Your task to perform on an android device: open sync settings in chrome Image 0: 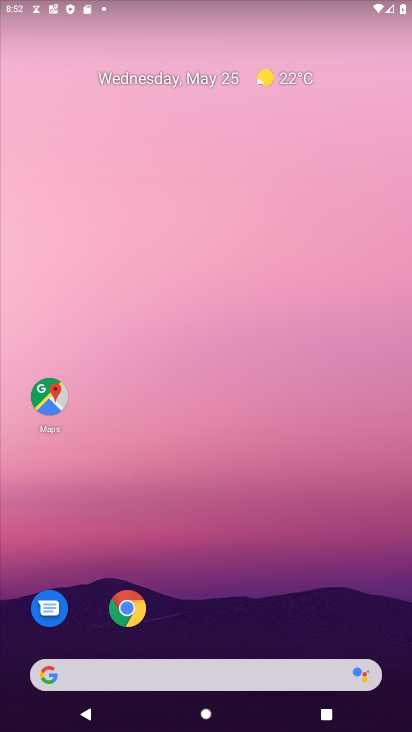
Step 0: click (127, 606)
Your task to perform on an android device: open sync settings in chrome Image 1: 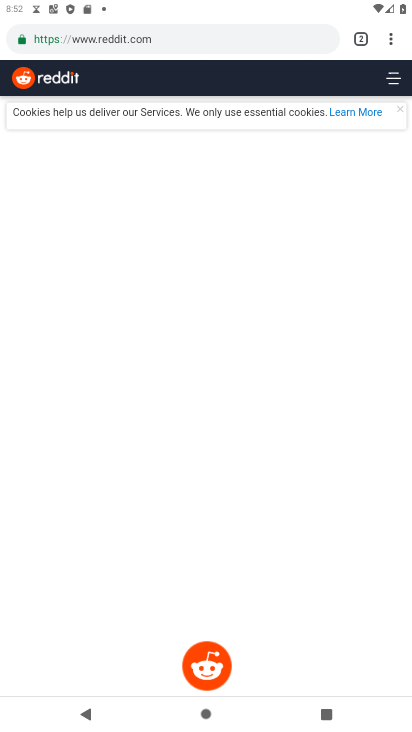
Step 1: click (391, 38)
Your task to perform on an android device: open sync settings in chrome Image 2: 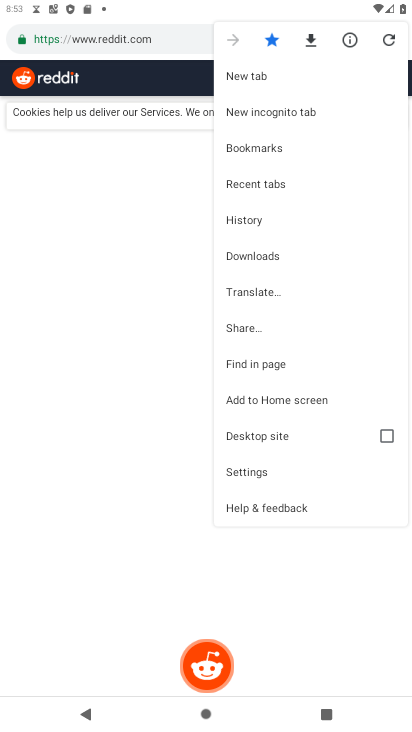
Step 2: click (247, 470)
Your task to perform on an android device: open sync settings in chrome Image 3: 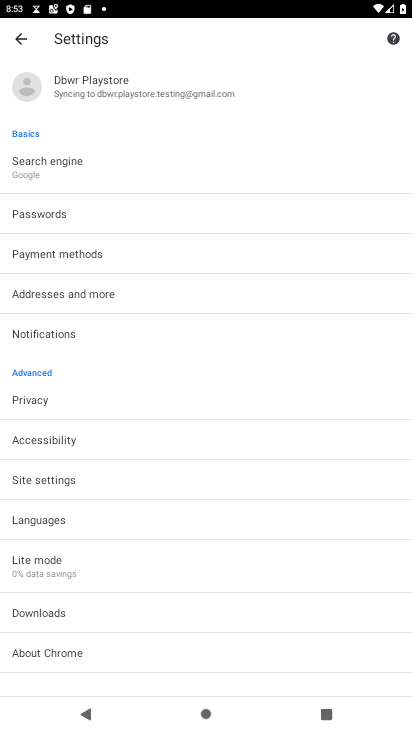
Step 3: click (53, 478)
Your task to perform on an android device: open sync settings in chrome Image 4: 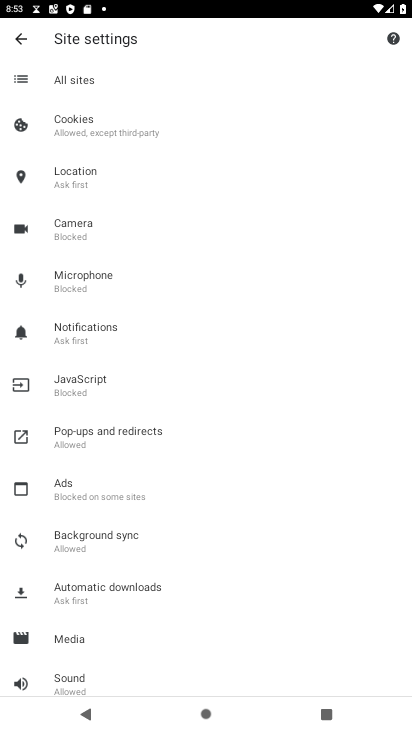
Step 4: click (104, 534)
Your task to perform on an android device: open sync settings in chrome Image 5: 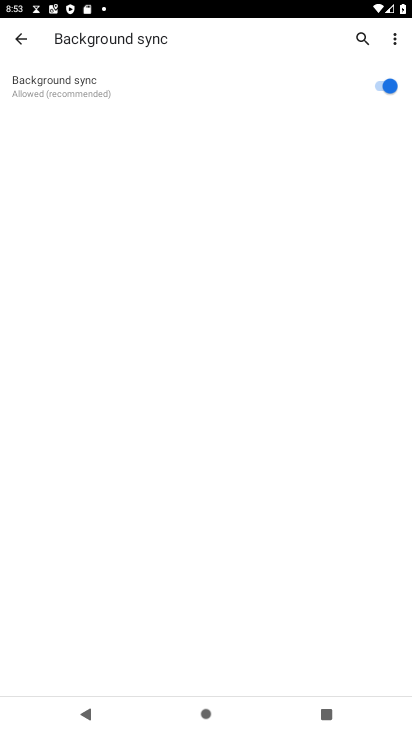
Step 5: task complete